Your task to perform on an android device: make emails show in primary in the gmail app Image 0: 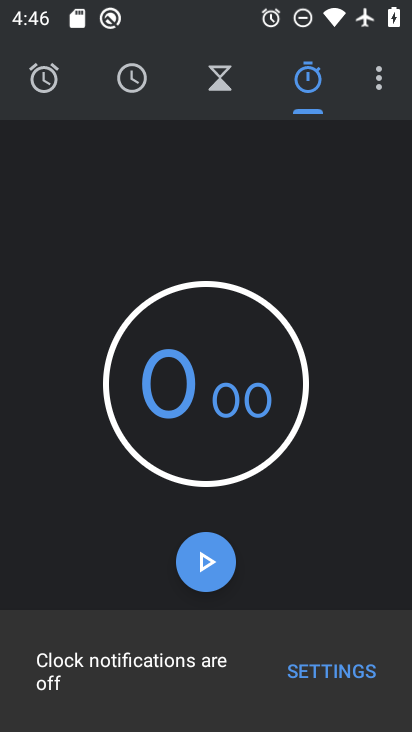
Step 0: press home button
Your task to perform on an android device: make emails show in primary in the gmail app Image 1: 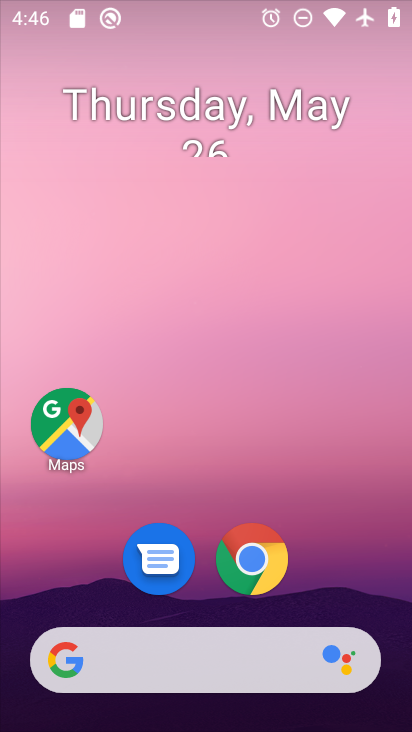
Step 1: drag from (326, 433) to (167, 45)
Your task to perform on an android device: make emails show in primary in the gmail app Image 2: 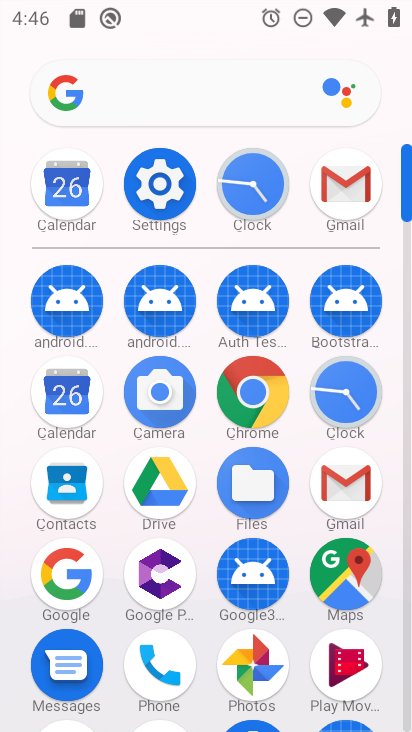
Step 2: click (346, 204)
Your task to perform on an android device: make emails show in primary in the gmail app Image 3: 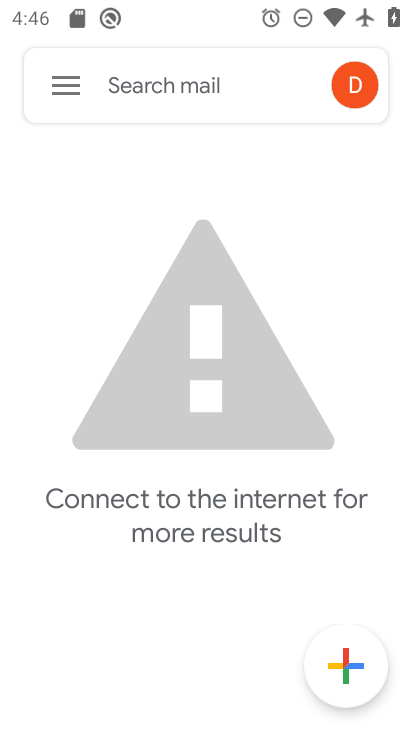
Step 3: click (68, 82)
Your task to perform on an android device: make emails show in primary in the gmail app Image 4: 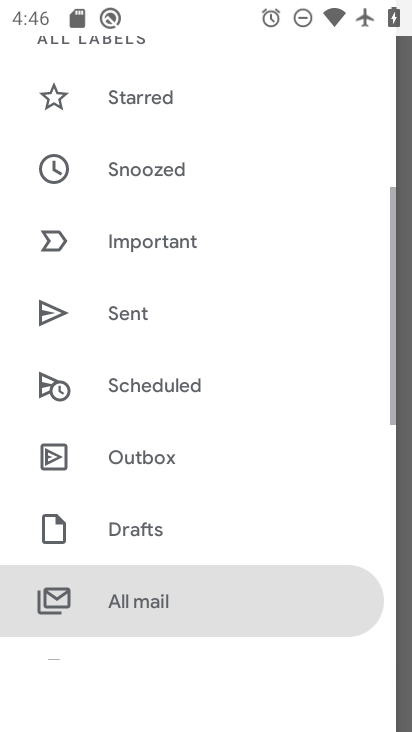
Step 4: drag from (188, 115) to (198, 724)
Your task to perform on an android device: make emails show in primary in the gmail app Image 5: 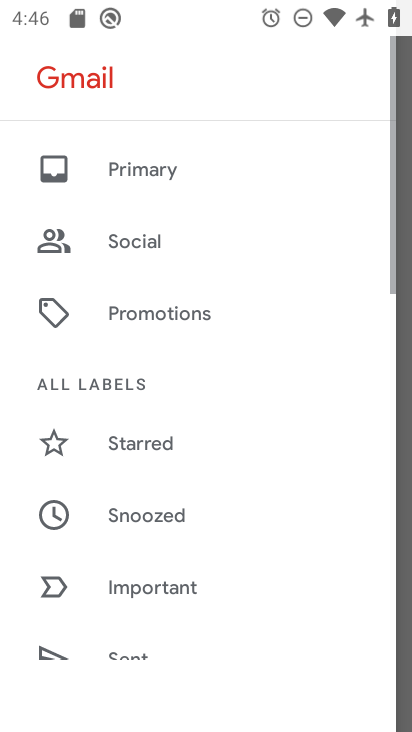
Step 5: click (172, 171)
Your task to perform on an android device: make emails show in primary in the gmail app Image 6: 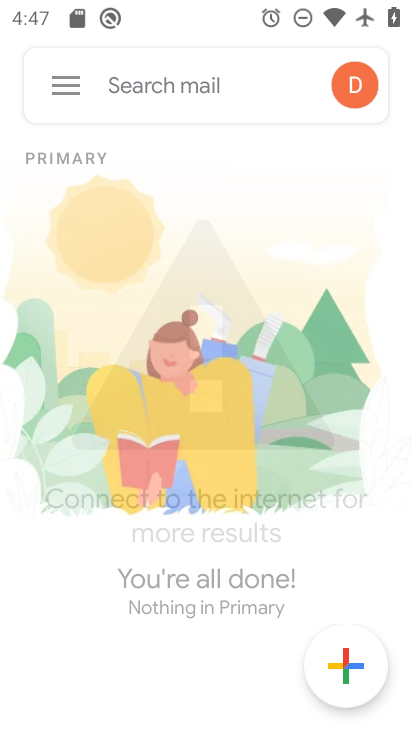
Step 6: task complete